Your task to perform on an android device: What is the news today? Image 0: 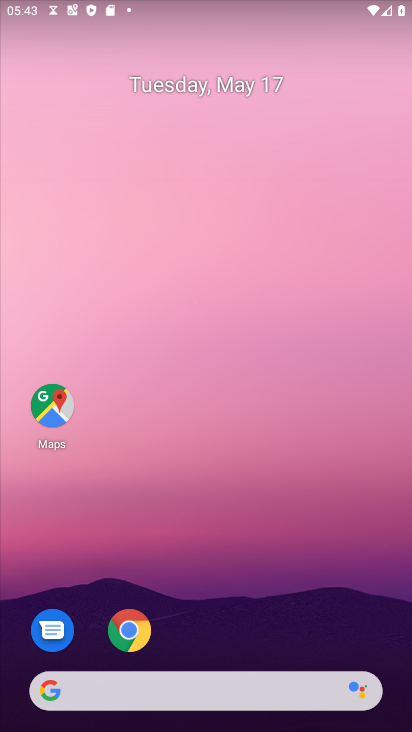
Step 0: click (139, 635)
Your task to perform on an android device: What is the news today? Image 1: 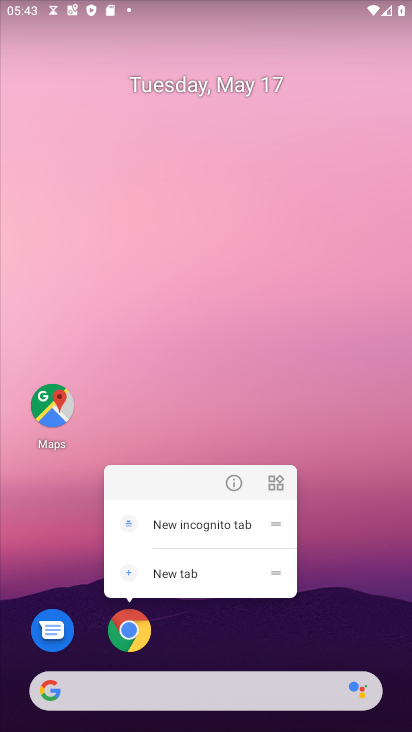
Step 1: click (120, 628)
Your task to perform on an android device: What is the news today? Image 2: 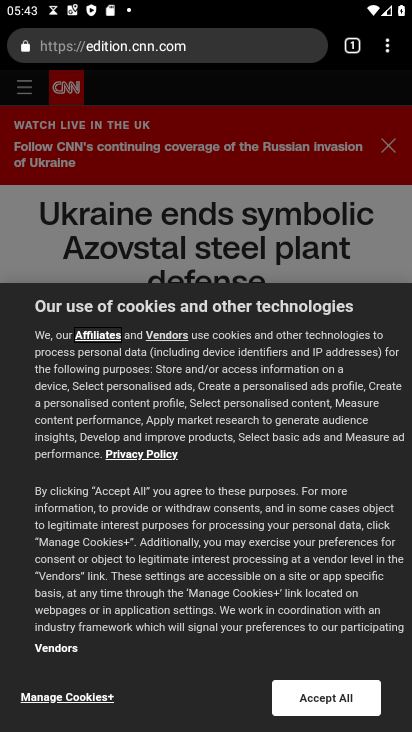
Step 2: click (212, 39)
Your task to perform on an android device: What is the news today? Image 3: 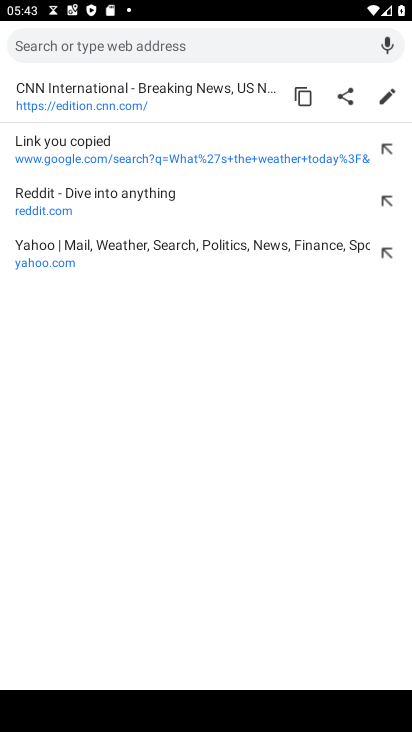
Step 3: type "What is the news today?"
Your task to perform on an android device: What is the news today? Image 4: 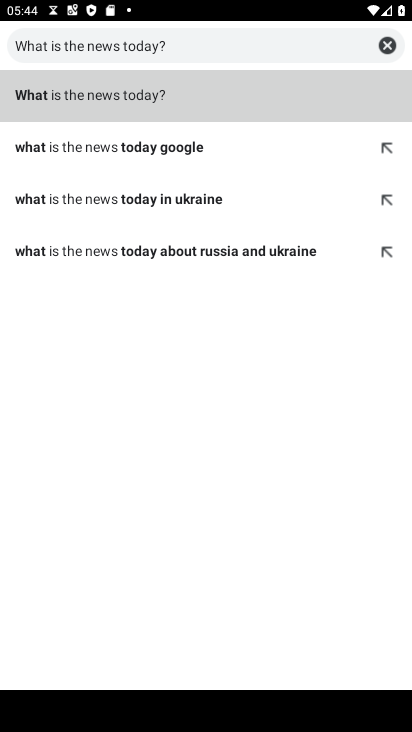
Step 4: click (90, 96)
Your task to perform on an android device: What is the news today? Image 5: 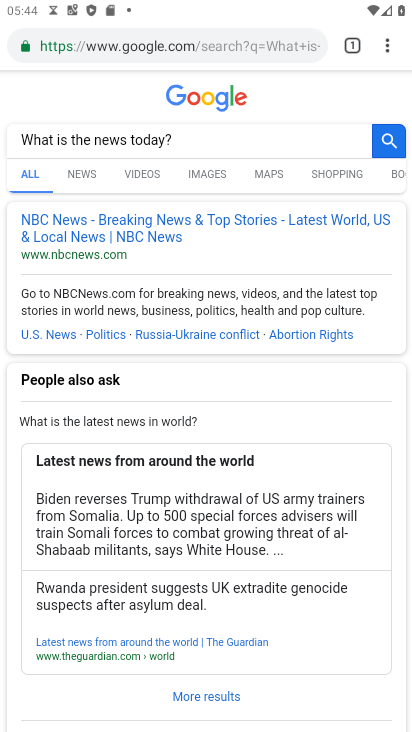
Step 5: task complete